Your task to perform on an android device: turn off data saver in the chrome app Image 0: 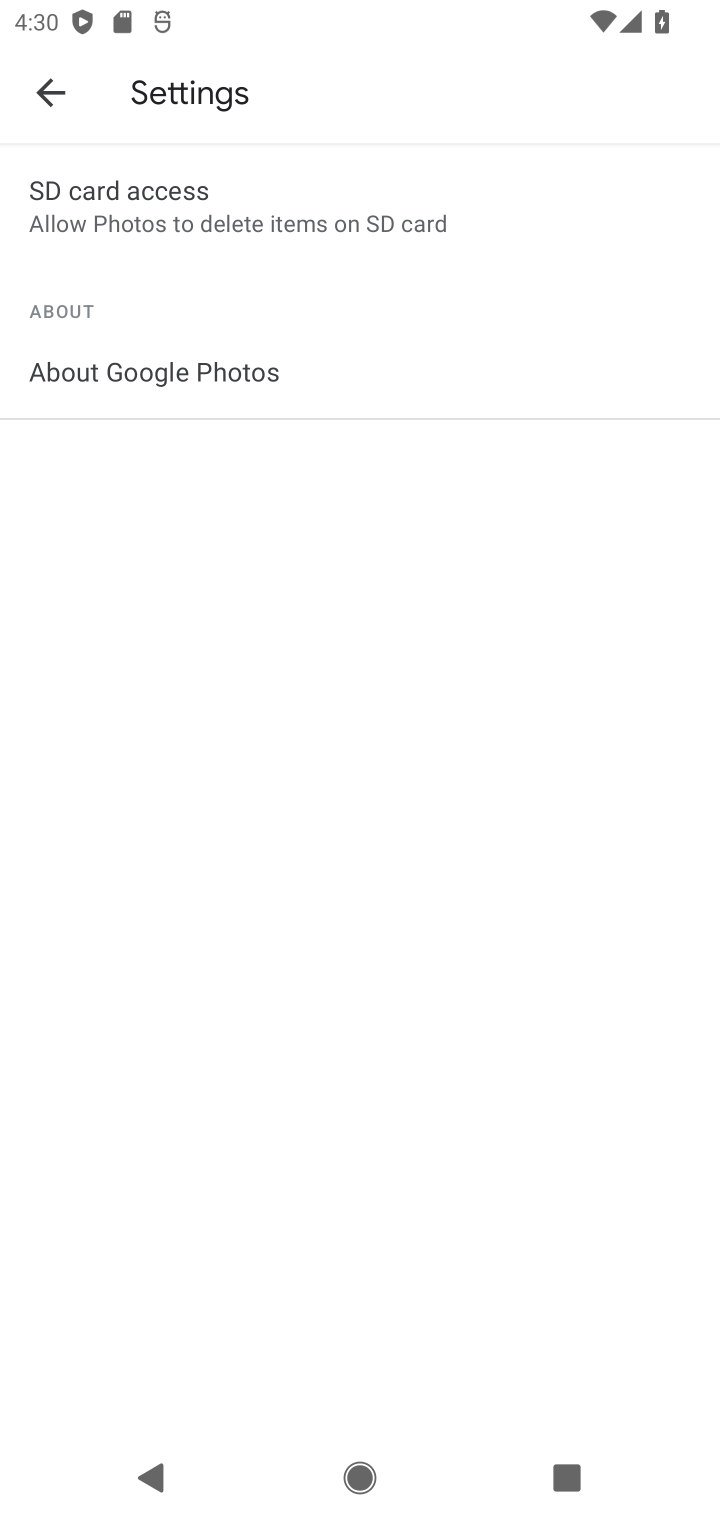
Step 0: press home button
Your task to perform on an android device: turn off data saver in the chrome app Image 1: 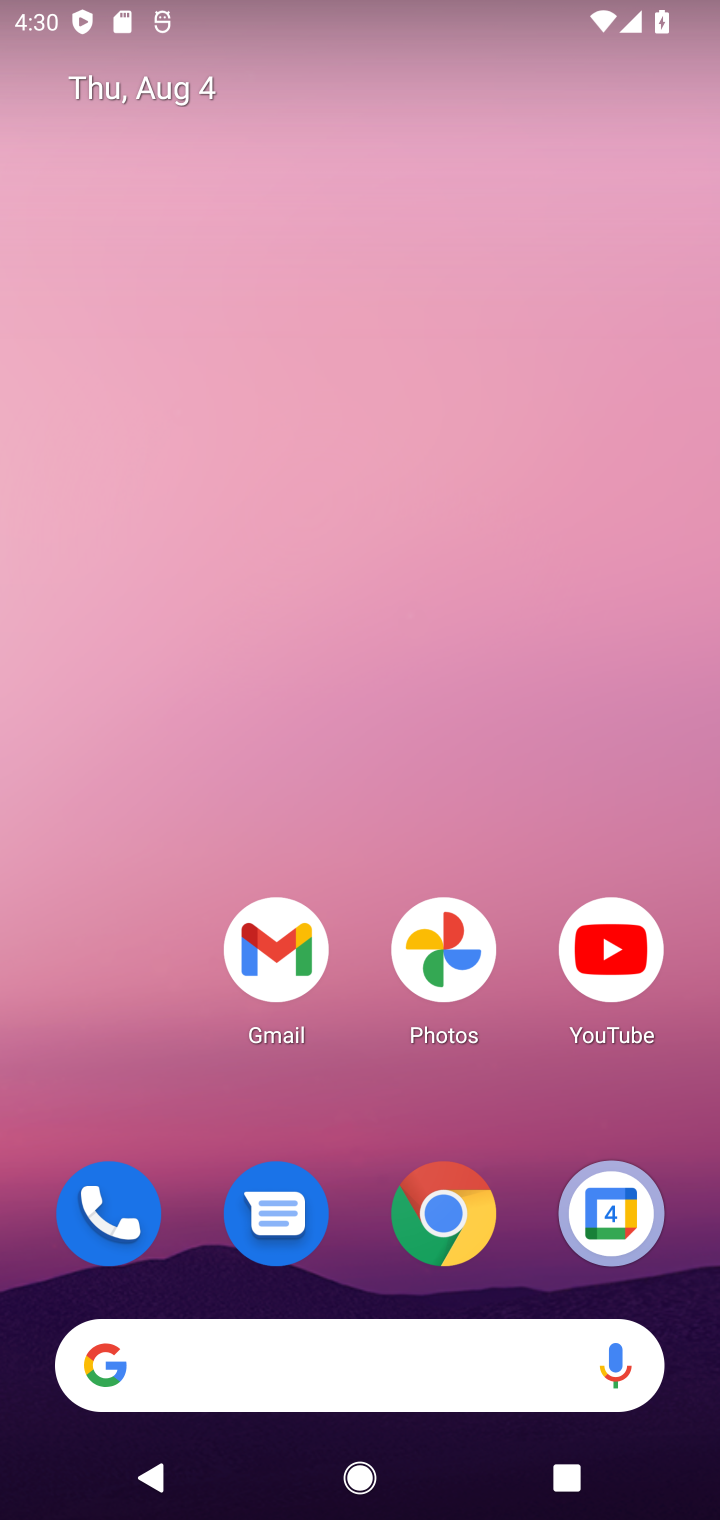
Step 1: click (438, 1207)
Your task to perform on an android device: turn off data saver in the chrome app Image 2: 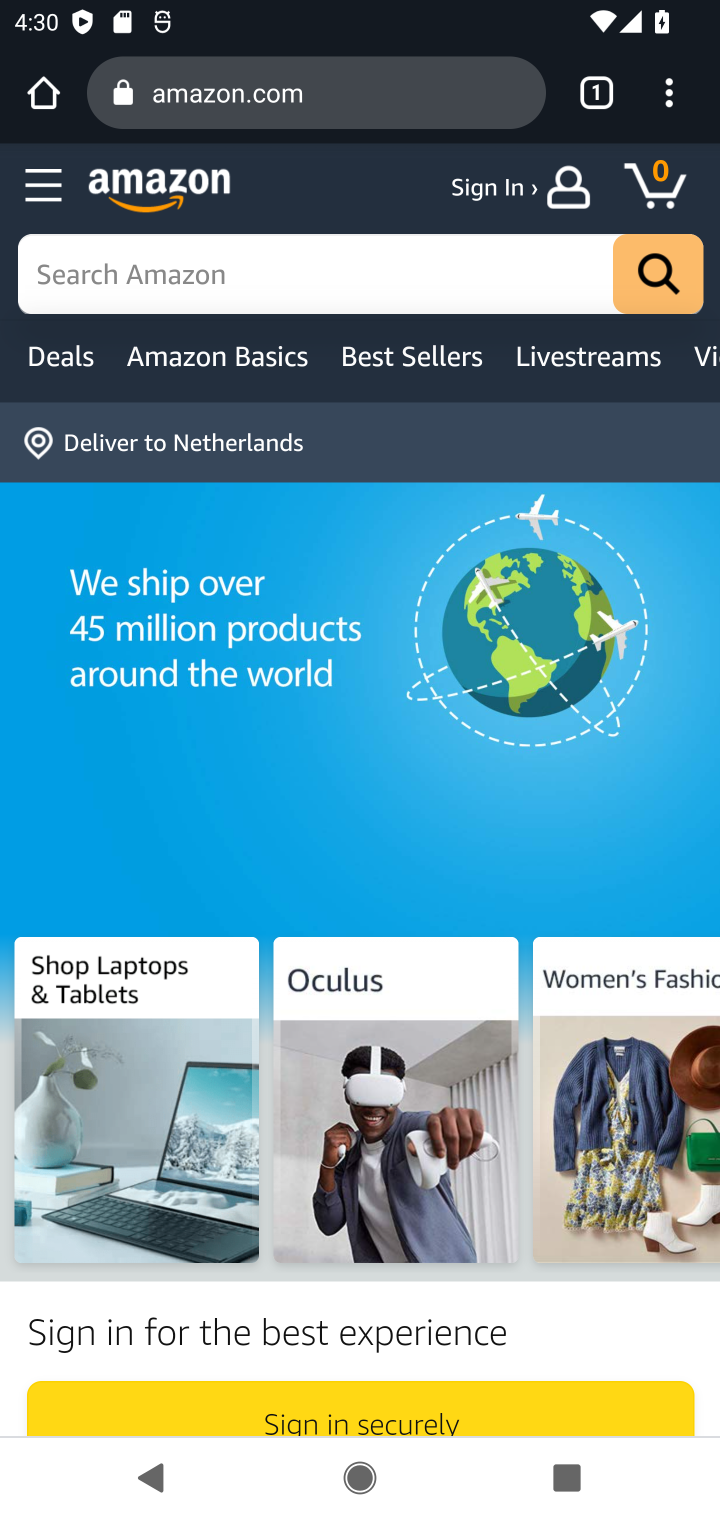
Step 2: click (670, 99)
Your task to perform on an android device: turn off data saver in the chrome app Image 3: 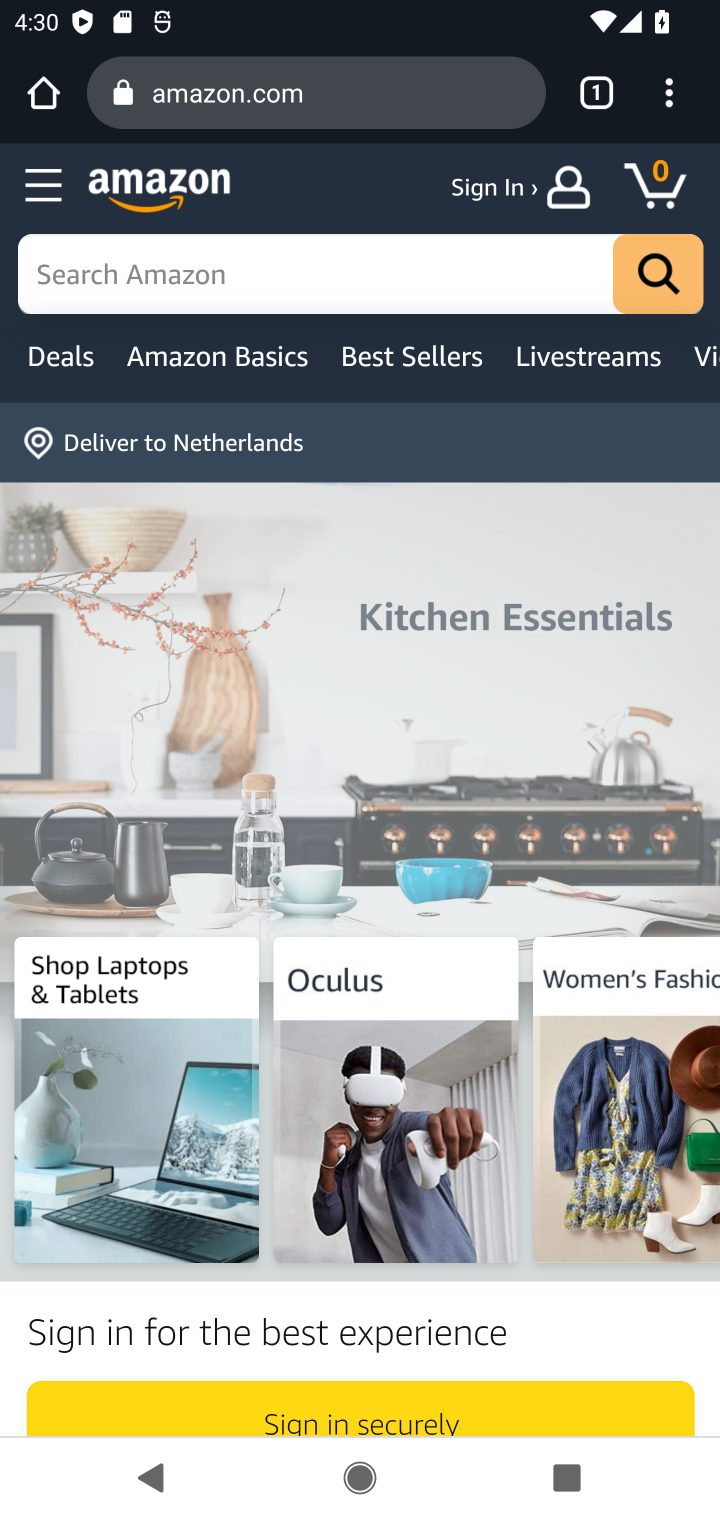
Step 3: click (677, 93)
Your task to perform on an android device: turn off data saver in the chrome app Image 4: 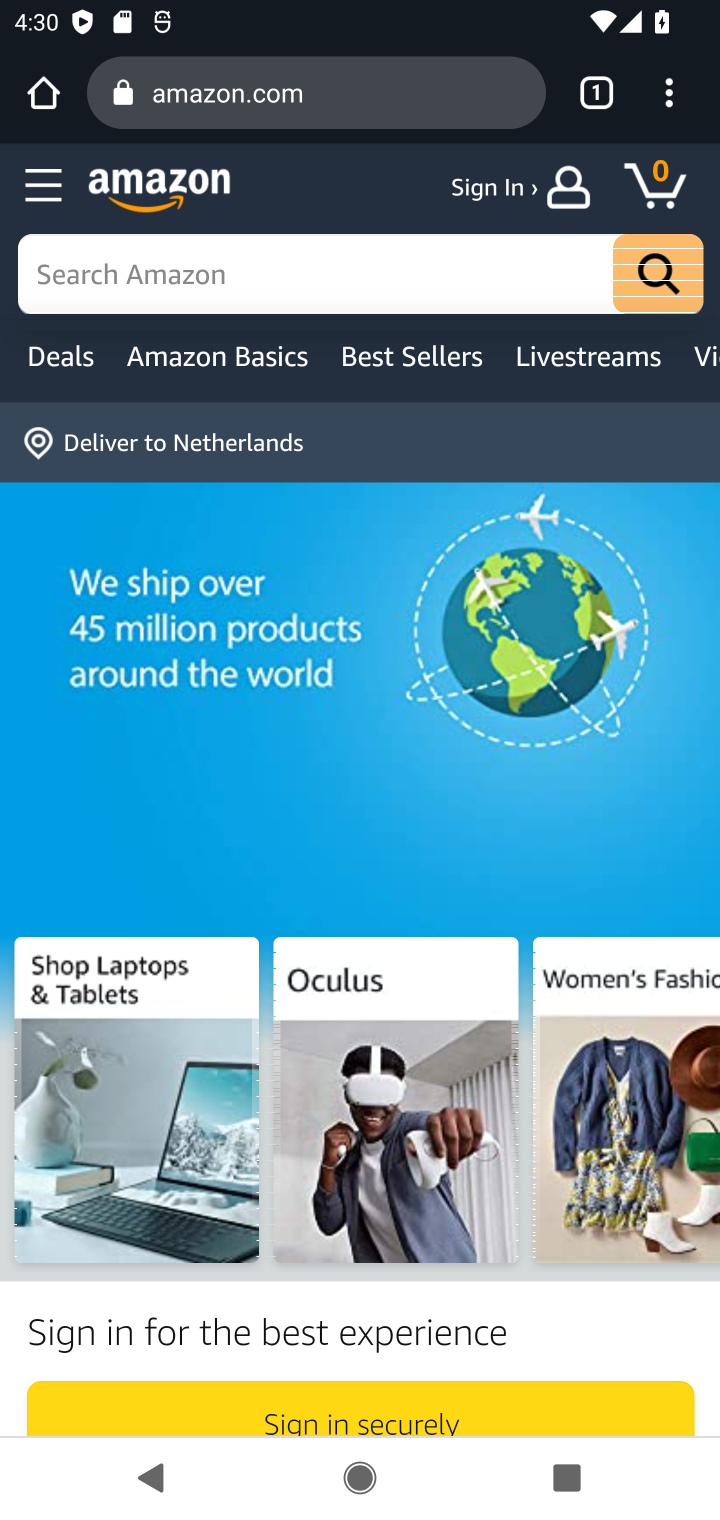
Step 4: drag from (677, 93) to (403, 1184)
Your task to perform on an android device: turn off data saver in the chrome app Image 5: 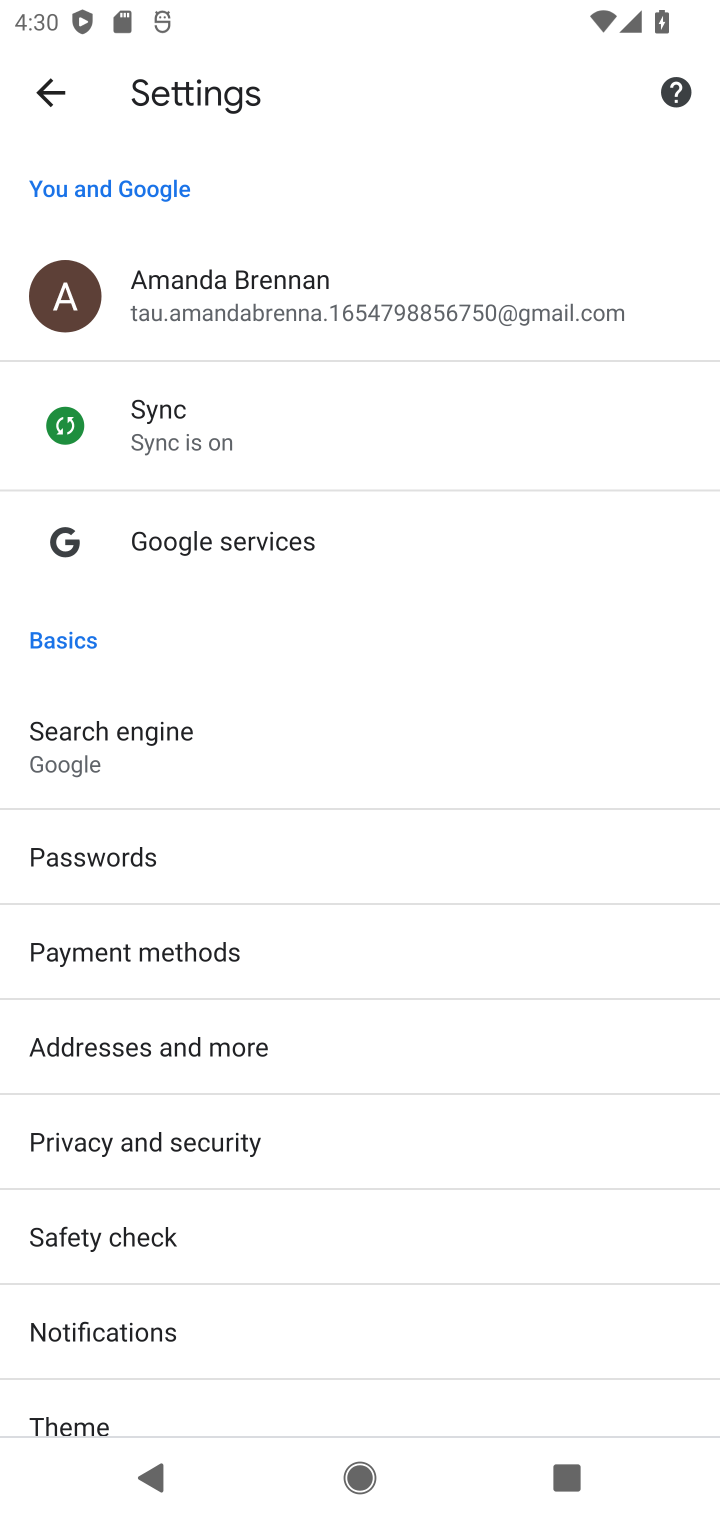
Step 5: drag from (326, 1139) to (354, 802)
Your task to perform on an android device: turn off data saver in the chrome app Image 6: 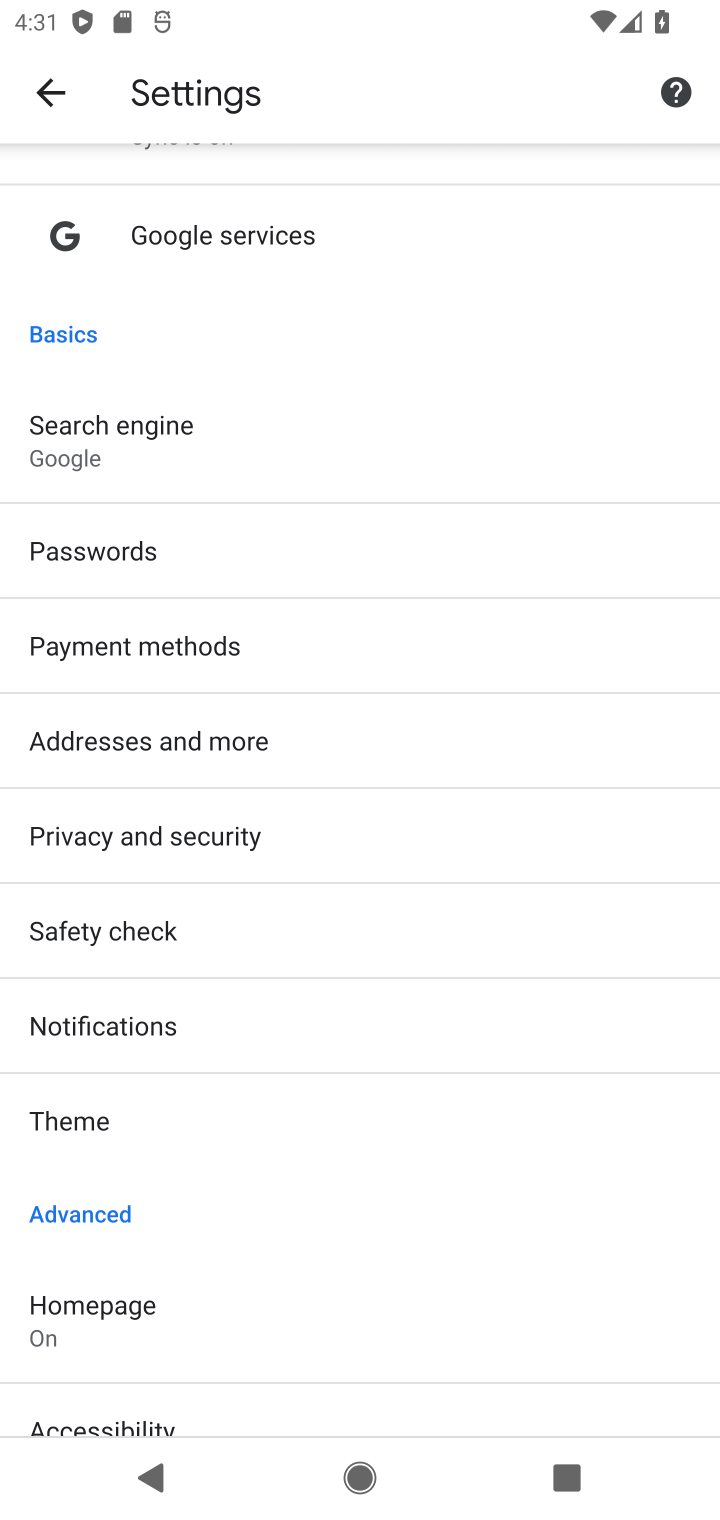
Step 6: drag from (217, 1167) to (428, 760)
Your task to perform on an android device: turn off data saver in the chrome app Image 7: 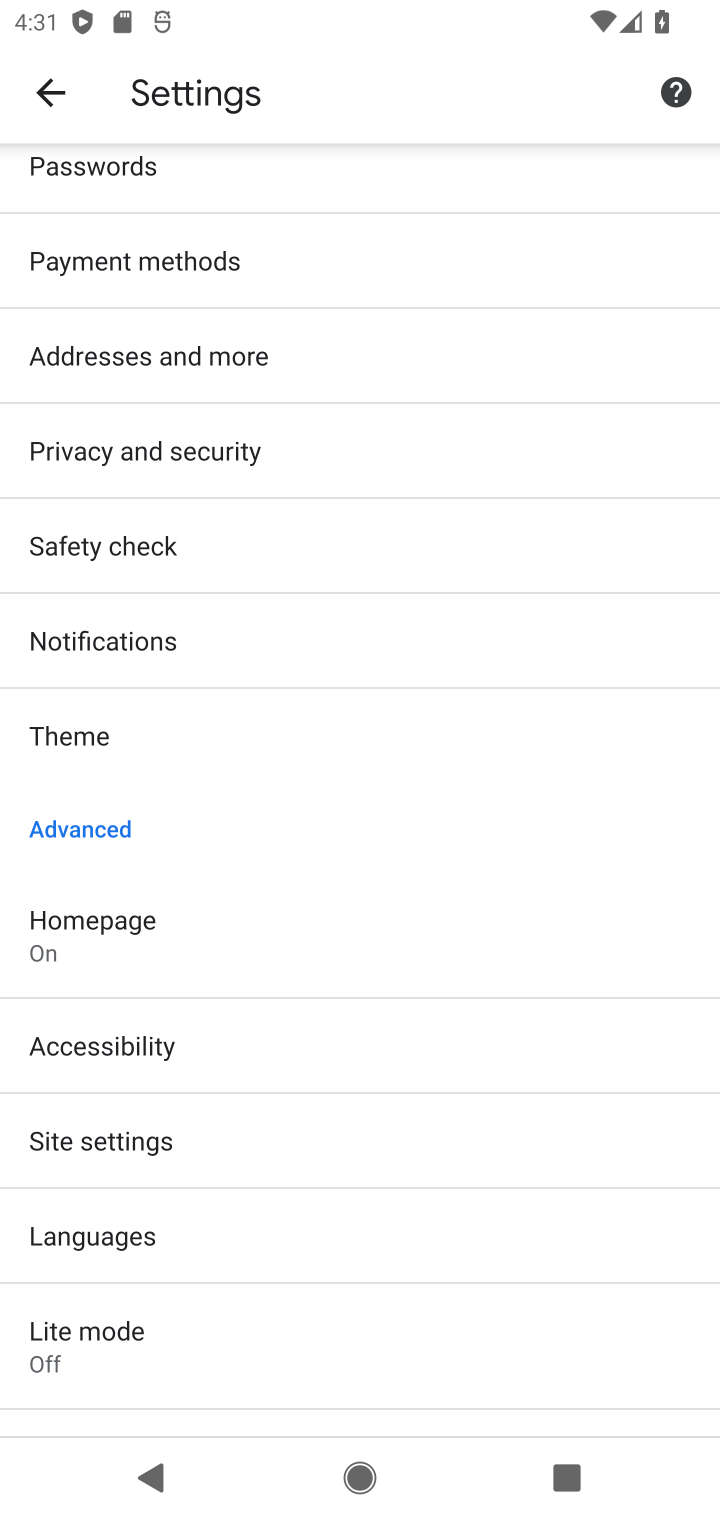
Step 7: click (109, 1328)
Your task to perform on an android device: turn off data saver in the chrome app Image 8: 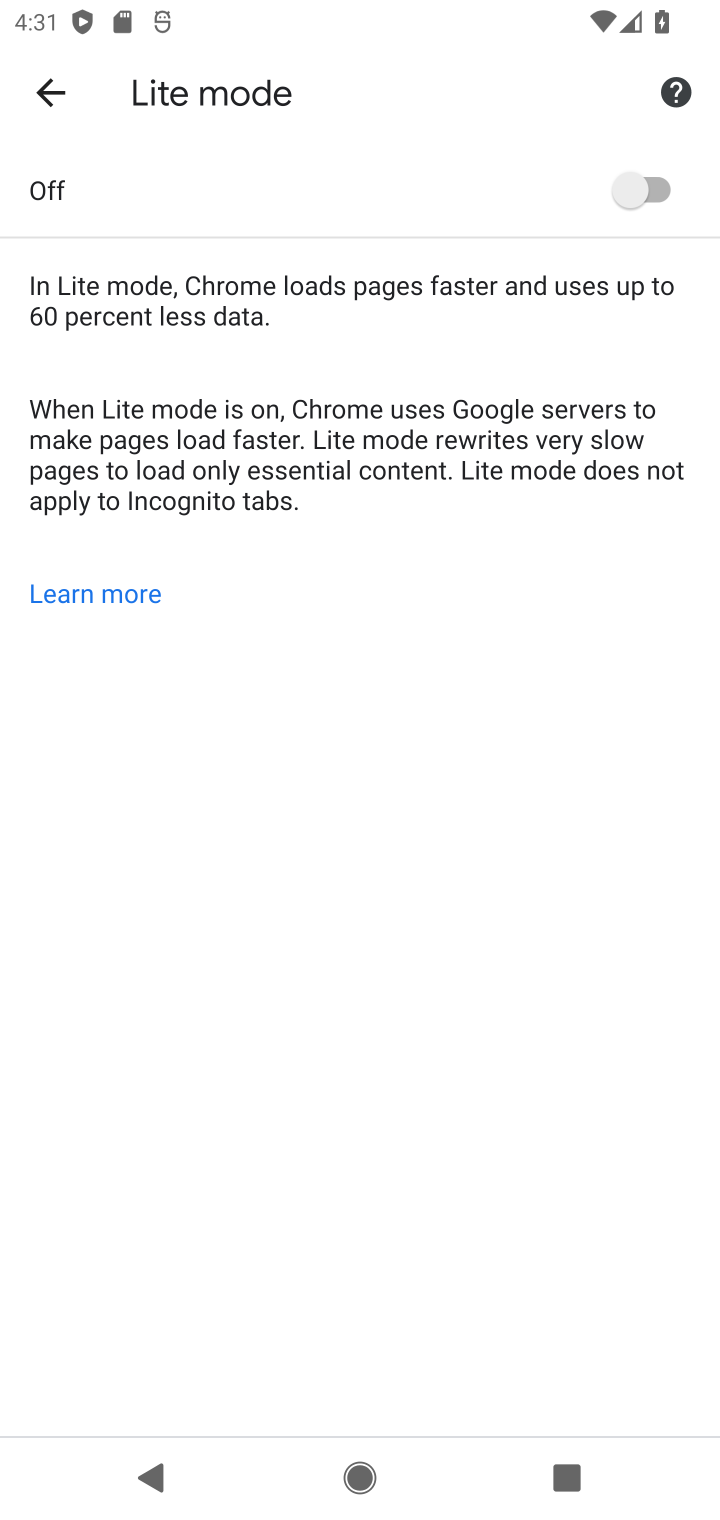
Step 8: task complete